Your task to perform on an android device: see sites visited before in the chrome app Image 0: 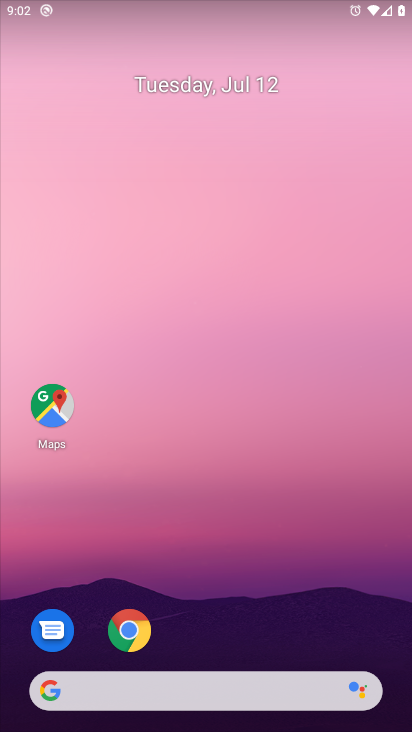
Step 0: drag from (250, 647) to (267, 142)
Your task to perform on an android device: see sites visited before in the chrome app Image 1: 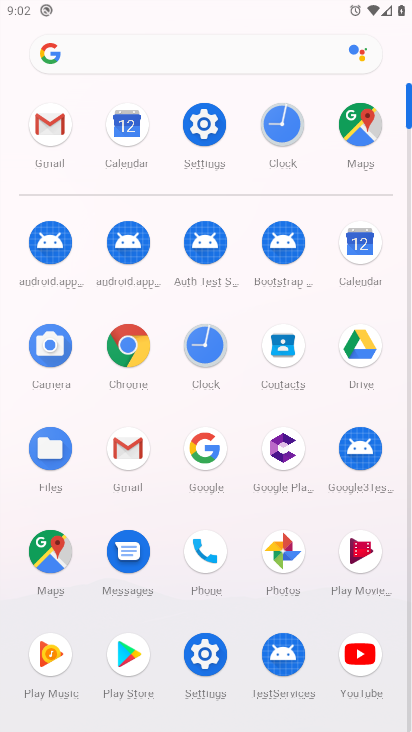
Step 1: click (117, 351)
Your task to perform on an android device: see sites visited before in the chrome app Image 2: 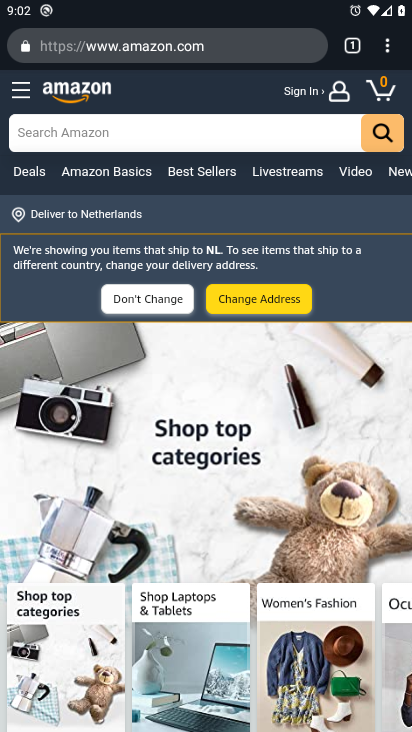
Step 2: task complete